Your task to perform on an android device: open app "Walmart Shopping & Grocery" (install if not already installed), go to login, and select forgot password Image 0: 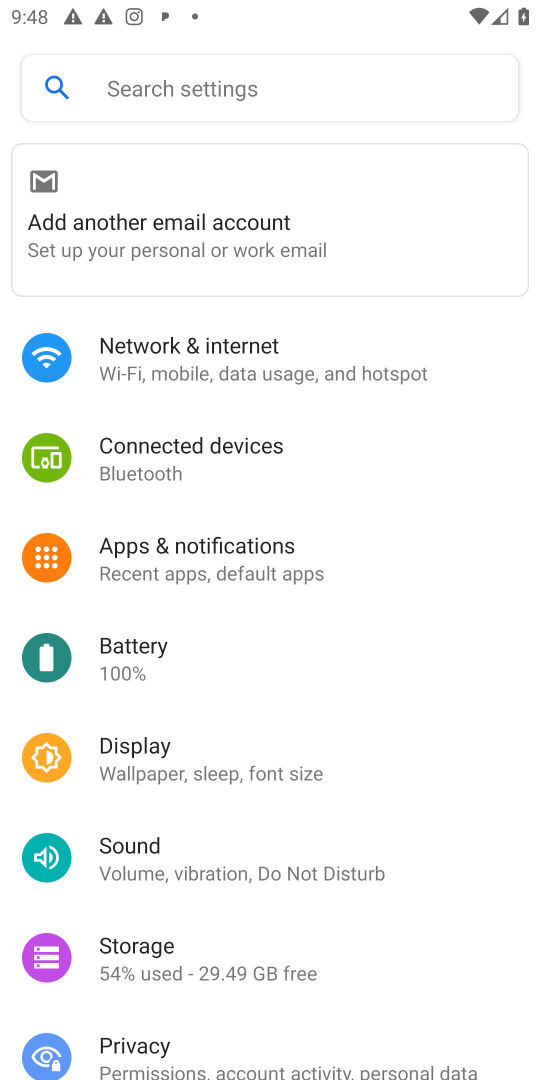
Step 0: press home button
Your task to perform on an android device: open app "Walmart Shopping & Grocery" (install if not already installed), go to login, and select forgot password Image 1: 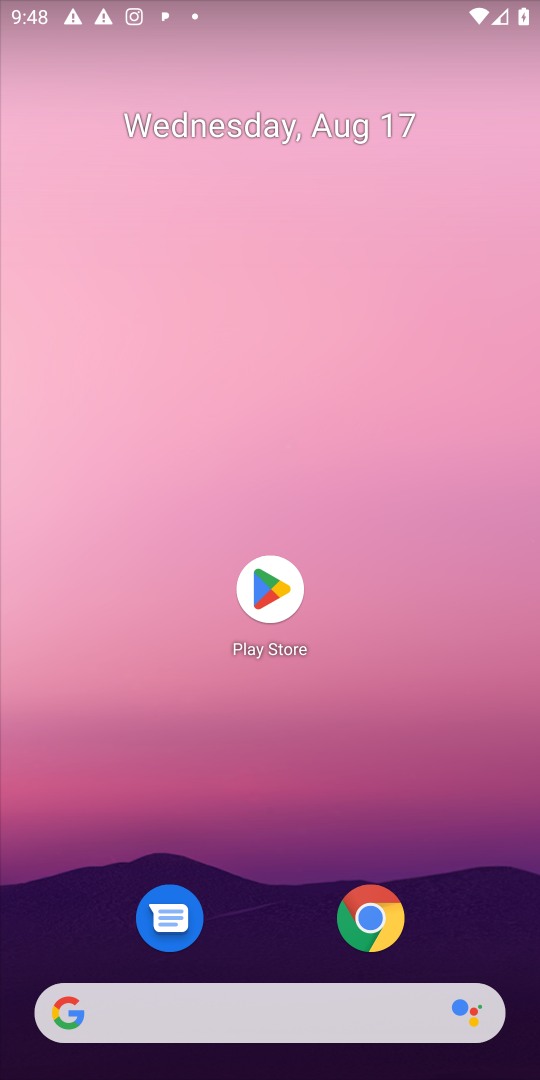
Step 1: click (263, 577)
Your task to perform on an android device: open app "Walmart Shopping & Grocery" (install if not already installed), go to login, and select forgot password Image 2: 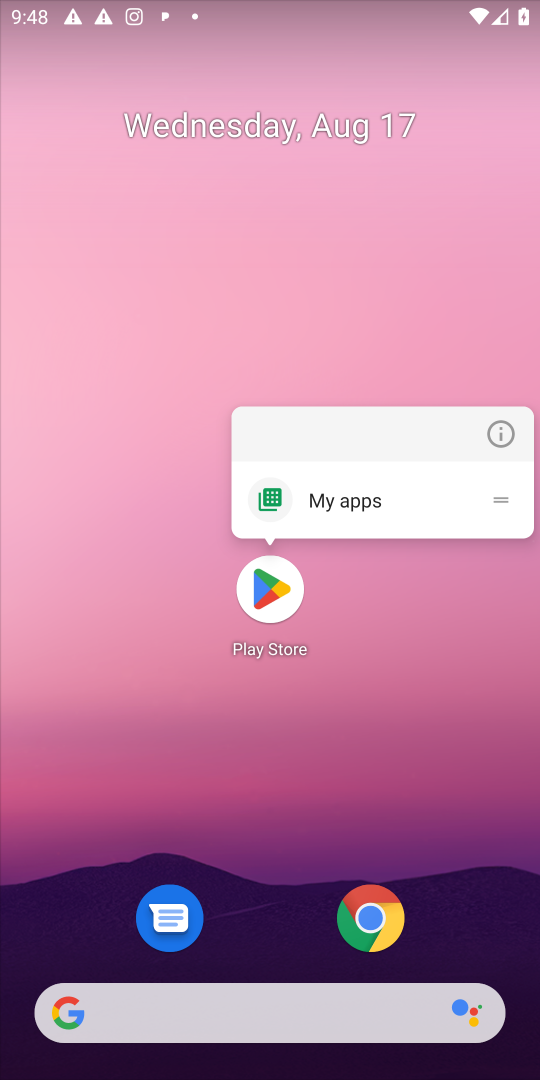
Step 2: click (274, 589)
Your task to perform on an android device: open app "Walmart Shopping & Grocery" (install if not already installed), go to login, and select forgot password Image 3: 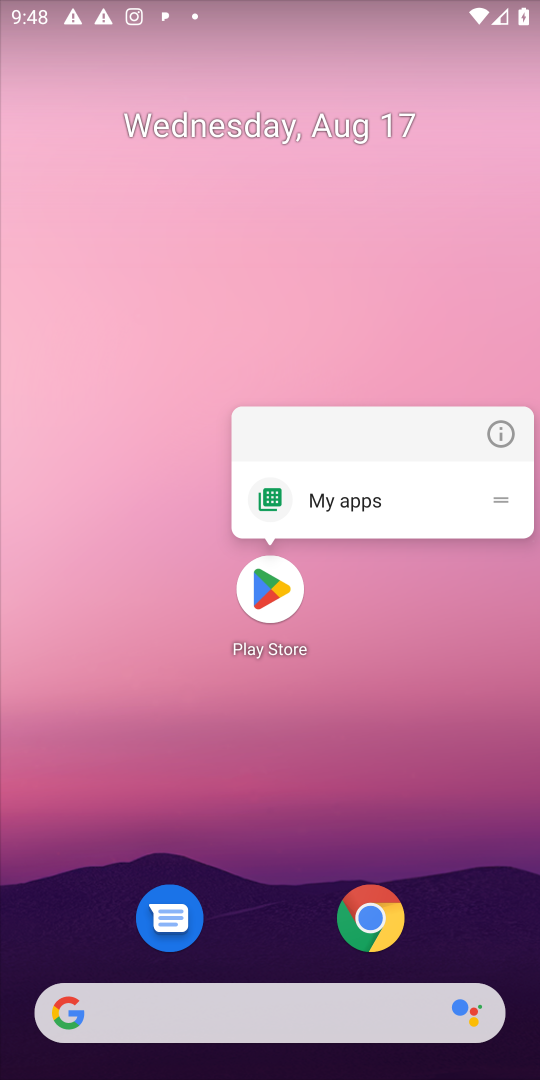
Step 3: click (272, 594)
Your task to perform on an android device: open app "Walmart Shopping & Grocery" (install if not already installed), go to login, and select forgot password Image 4: 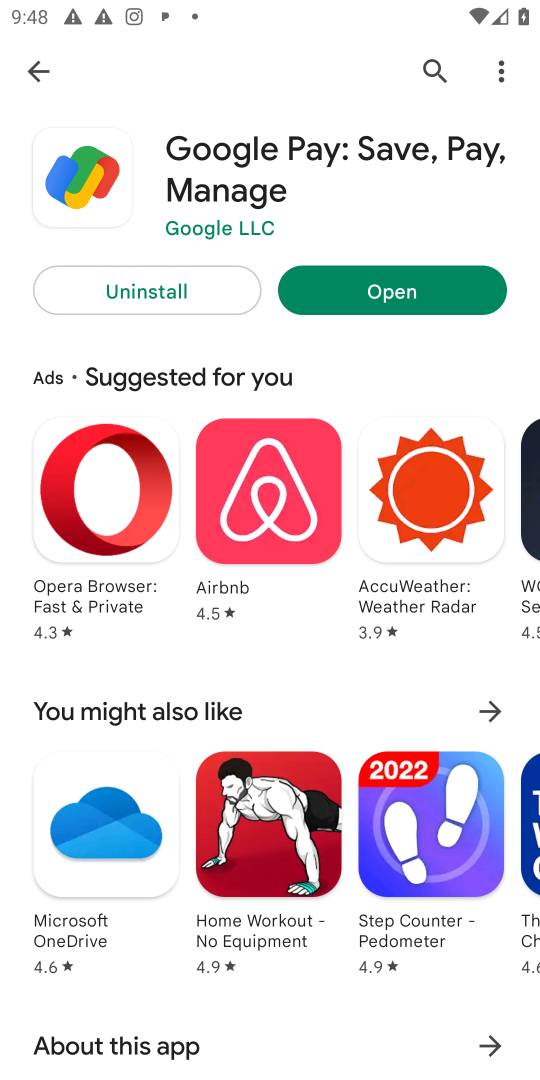
Step 4: click (425, 71)
Your task to perform on an android device: open app "Walmart Shopping & Grocery" (install if not already installed), go to login, and select forgot password Image 5: 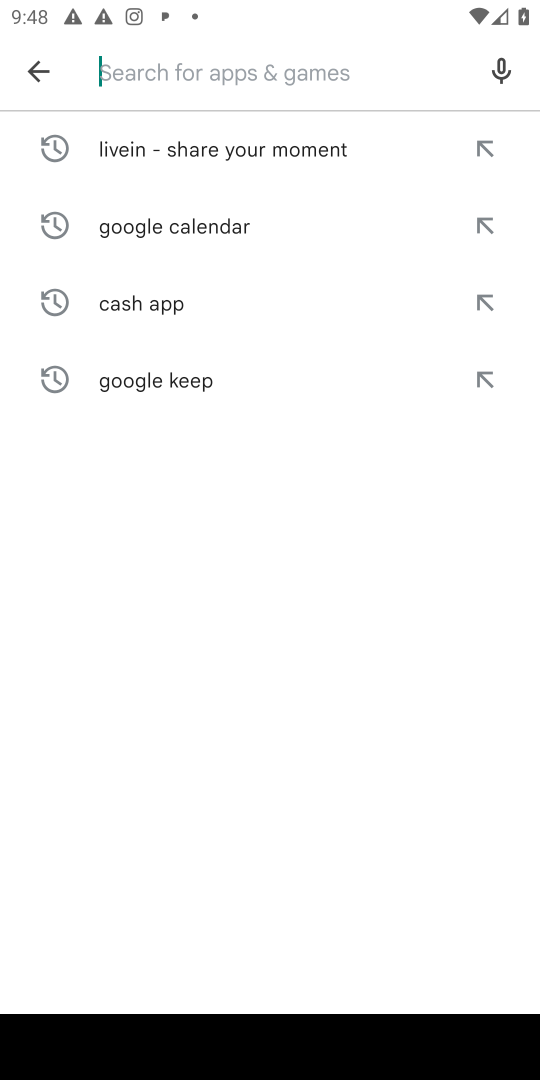
Step 5: type "Walmart Shopping & Grocery"
Your task to perform on an android device: open app "Walmart Shopping & Grocery" (install if not already installed), go to login, and select forgot password Image 6: 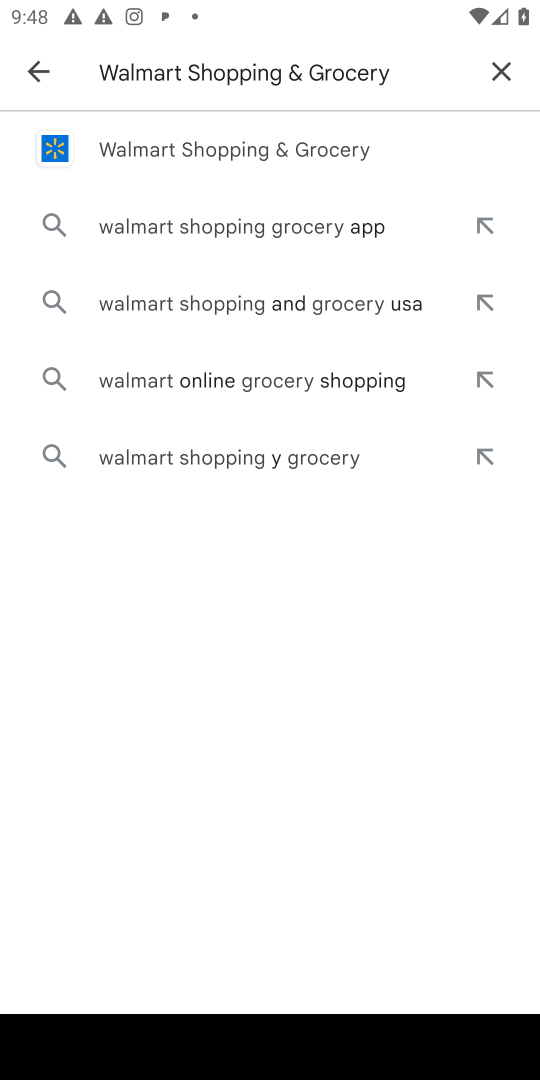
Step 6: click (154, 137)
Your task to perform on an android device: open app "Walmart Shopping & Grocery" (install if not already installed), go to login, and select forgot password Image 7: 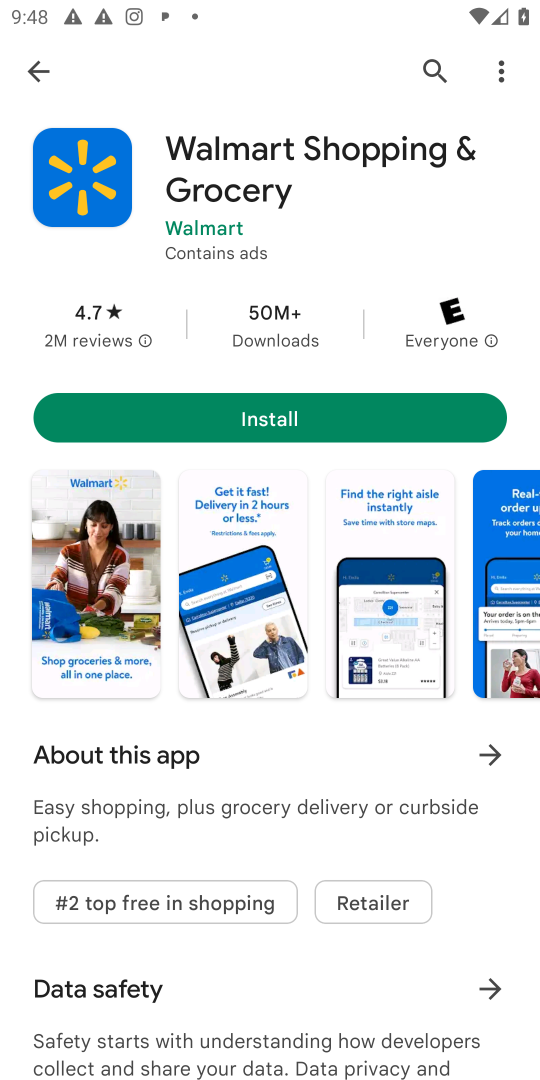
Step 7: click (286, 411)
Your task to perform on an android device: open app "Walmart Shopping & Grocery" (install if not already installed), go to login, and select forgot password Image 8: 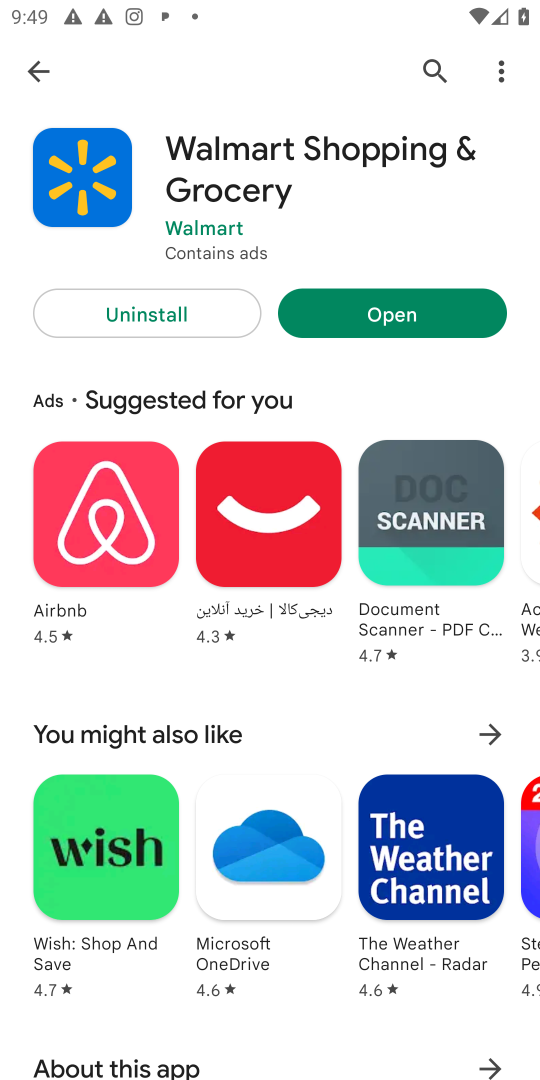
Step 8: click (350, 322)
Your task to perform on an android device: open app "Walmart Shopping & Grocery" (install if not already installed), go to login, and select forgot password Image 9: 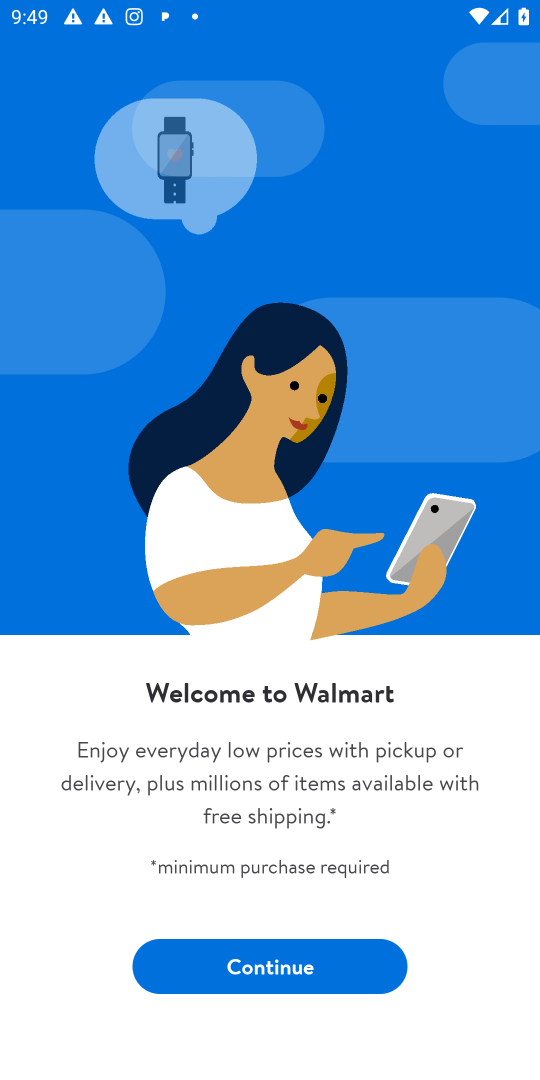
Step 9: click (232, 961)
Your task to perform on an android device: open app "Walmart Shopping & Grocery" (install if not already installed), go to login, and select forgot password Image 10: 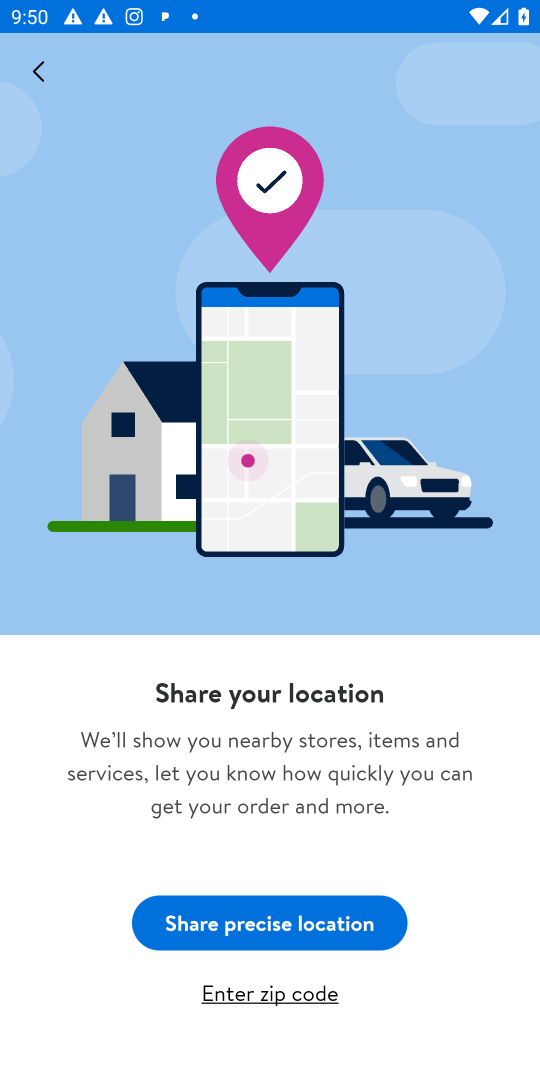
Step 10: task complete